Your task to perform on an android device: turn off sleep mode Image 0: 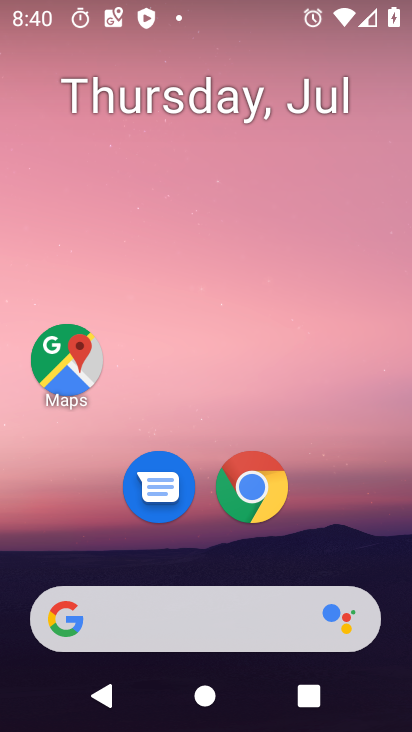
Step 0: drag from (200, 633) to (221, 235)
Your task to perform on an android device: turn off sleep mode Image 1: 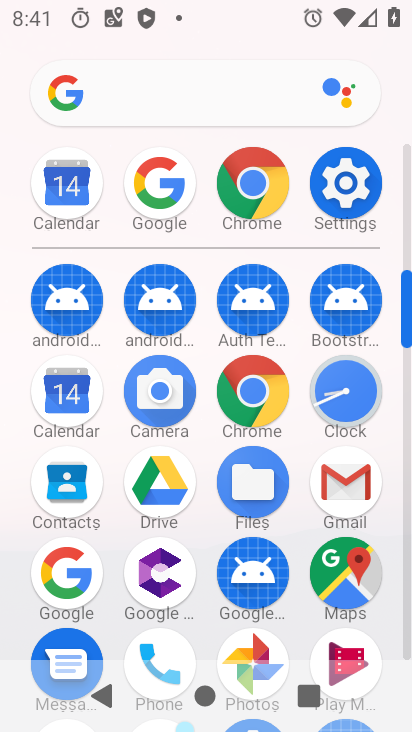
Step 1: click (361, 198)
Your task to perform on an android device: turn off sleep mode Image 2: 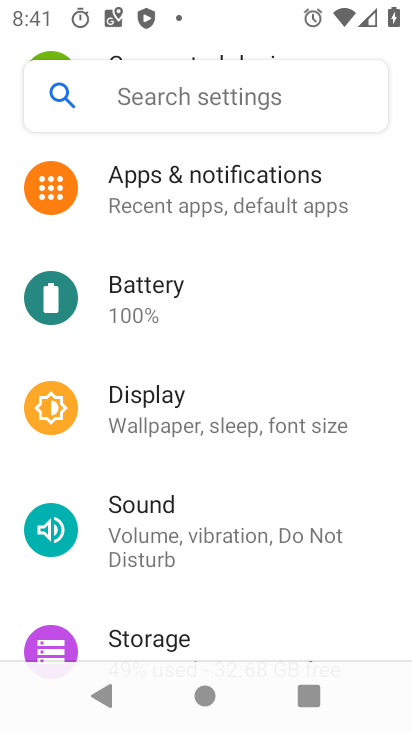
Step 2: click (293, 424)
Your task to perform on an android device: turn off sleep mode Image 3: 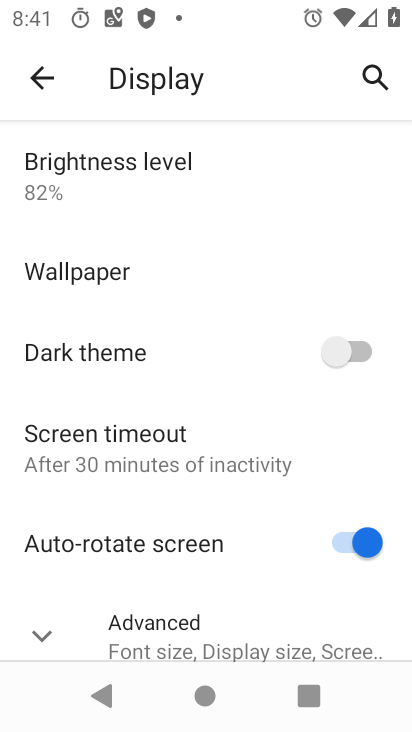
Step 3: click (187, 647)
Your task to perform on an android device: turn off sleep mode Image 4: 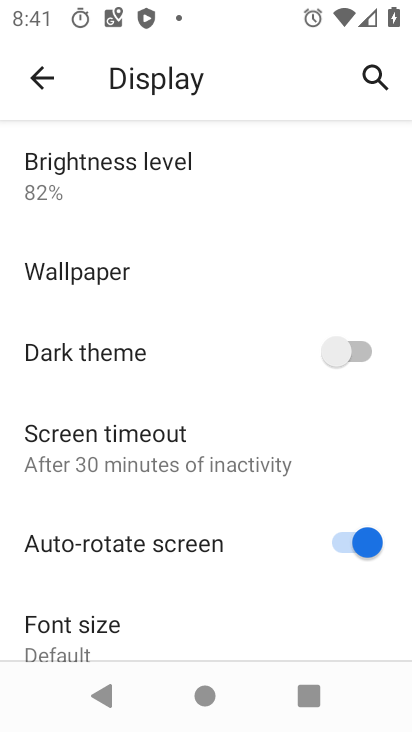
Step 4: task complete